Your task to perform on an android device: Search for the best books on Goodreads Image 0: 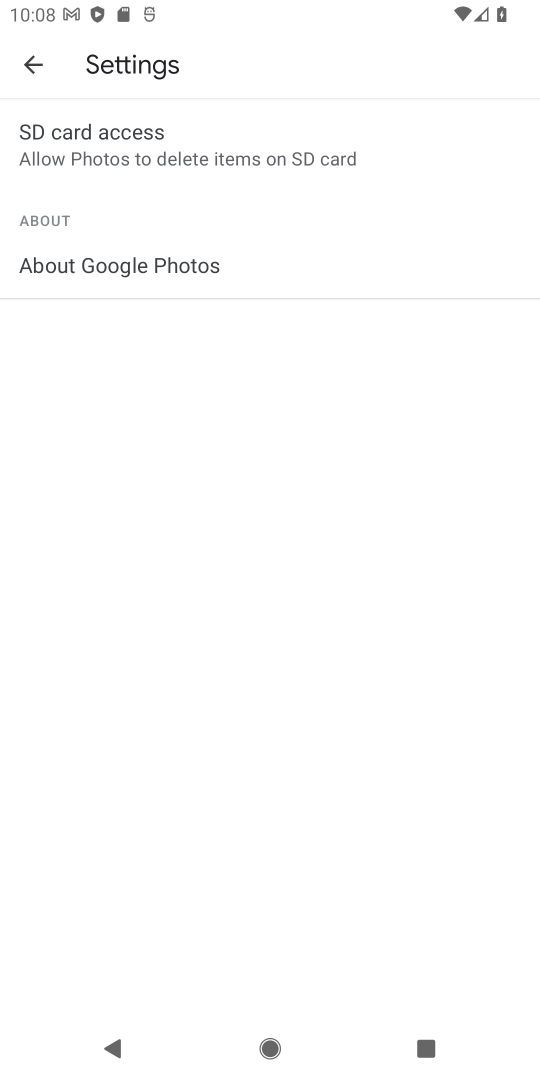
Step 0: press home button
Your task to perform on an android device: Search for the best books on Goodreads Image 1: 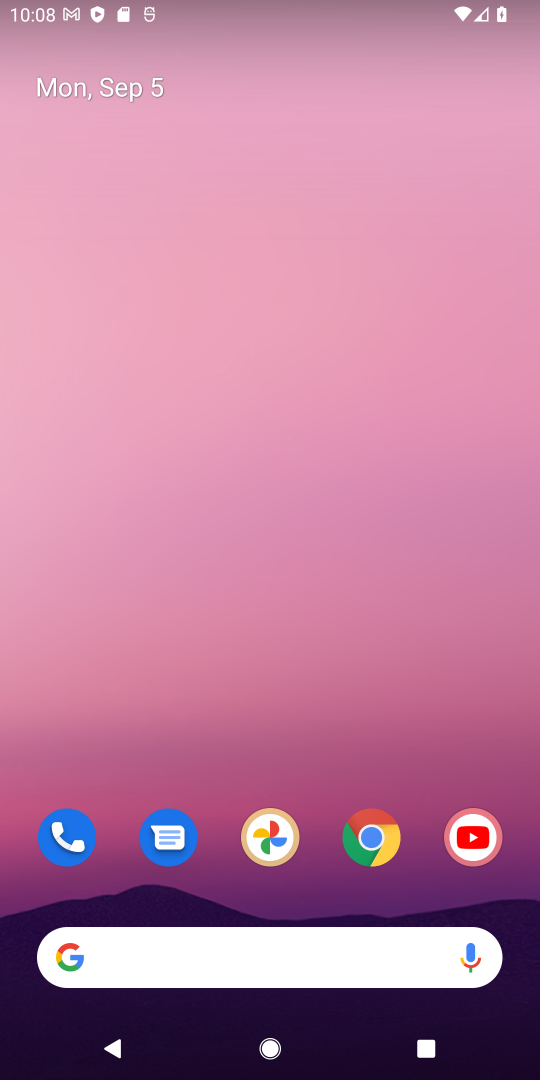
Step 1: drag from (323, 786) to (352, 159)
Your task to perform on an android device: Search for the best books on Goodreads Image 2: 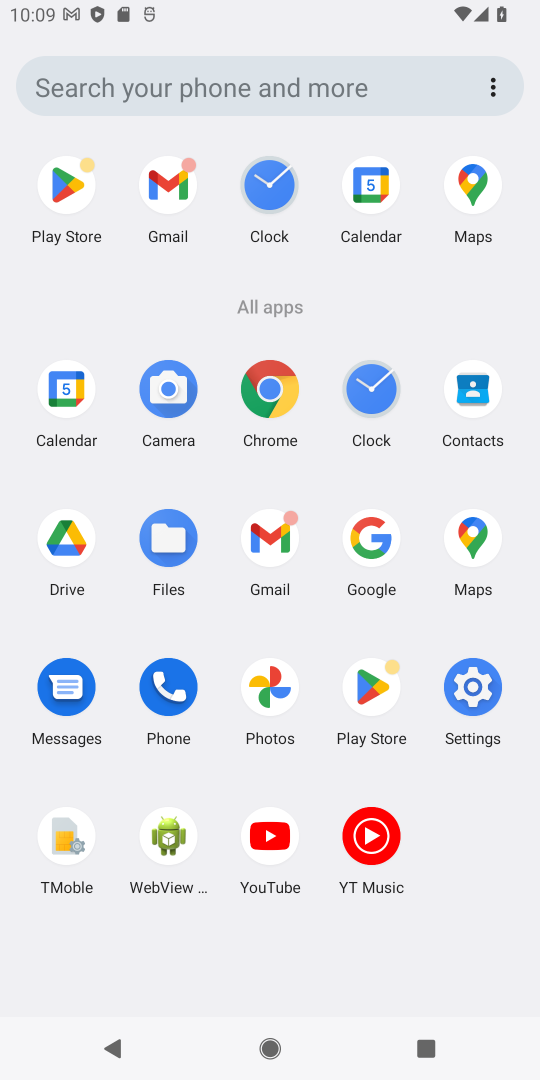
Step 2: click (261, 389)
Your task to perform on an android device: Search for the best books on Goodreads Image 3: 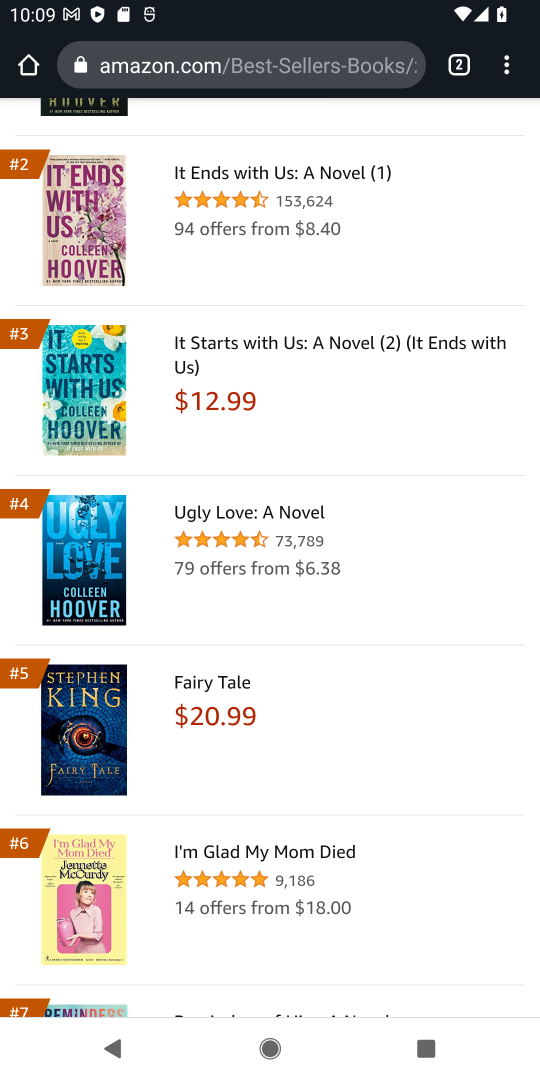
Step 3: click (451, 68)
Your task to perform on an android device: Search for the best books on Goodreads Image 4: 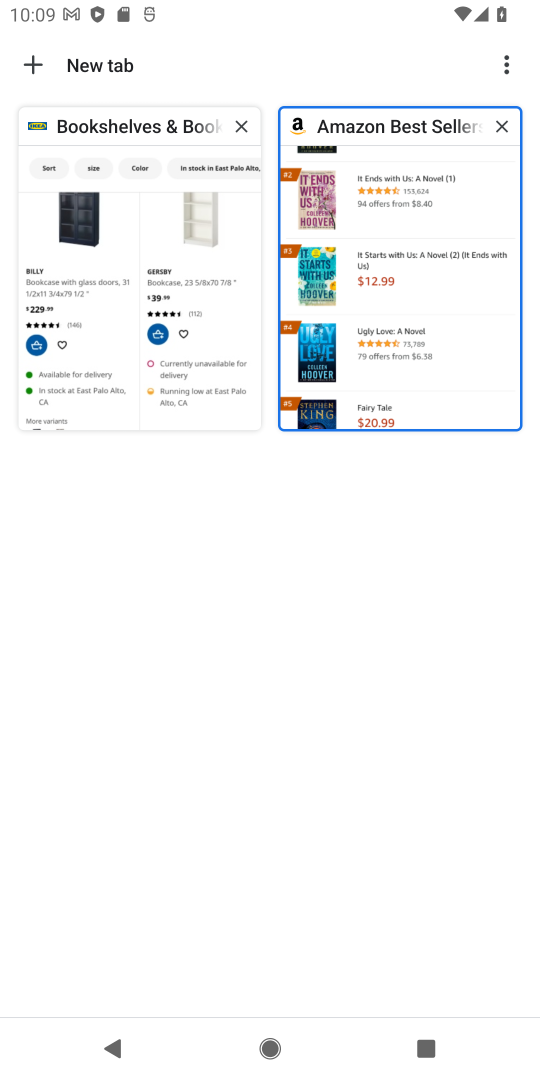
Step 4: click (234, 128)
Your task to perform on an android device: Search for the best books on Goodreads Image 5: 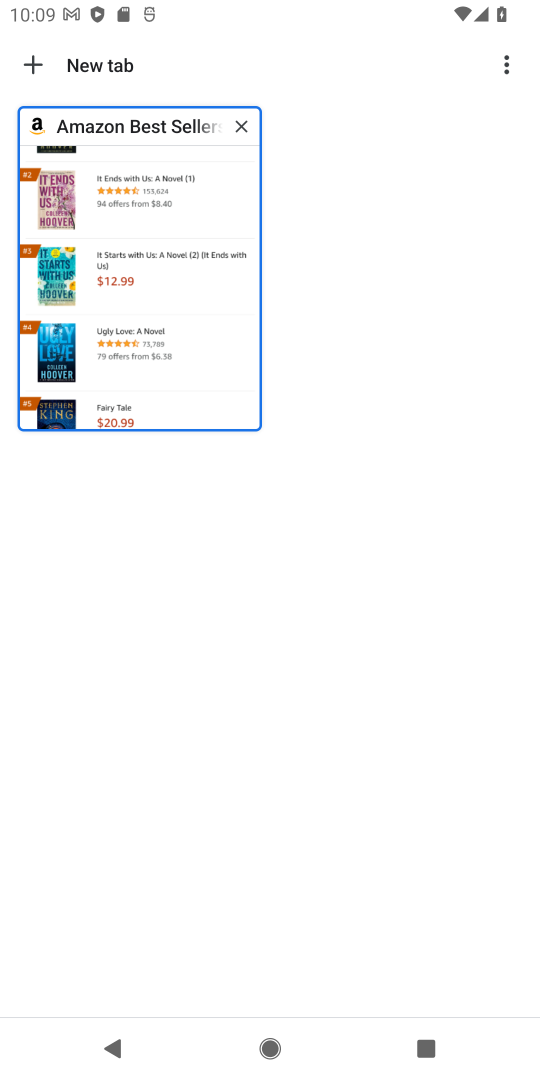
Step 5: click (25, 66)
Your task to perform on an android device: Search for the best books on Goodreads Image 6: 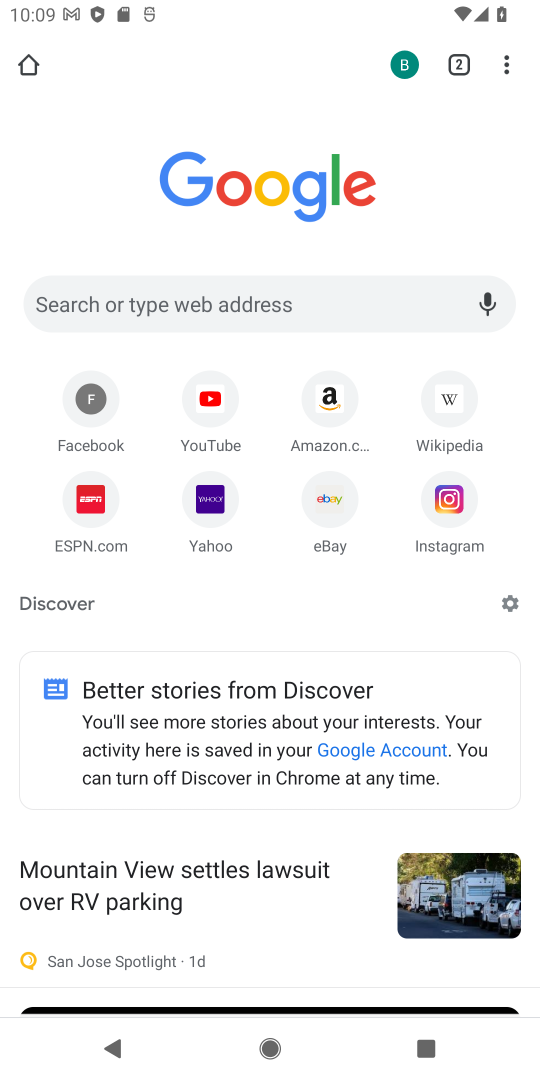
Step 6: click (195, 295)
Your task to perform on an android device: Search for the best books on Goodreads Image 7: 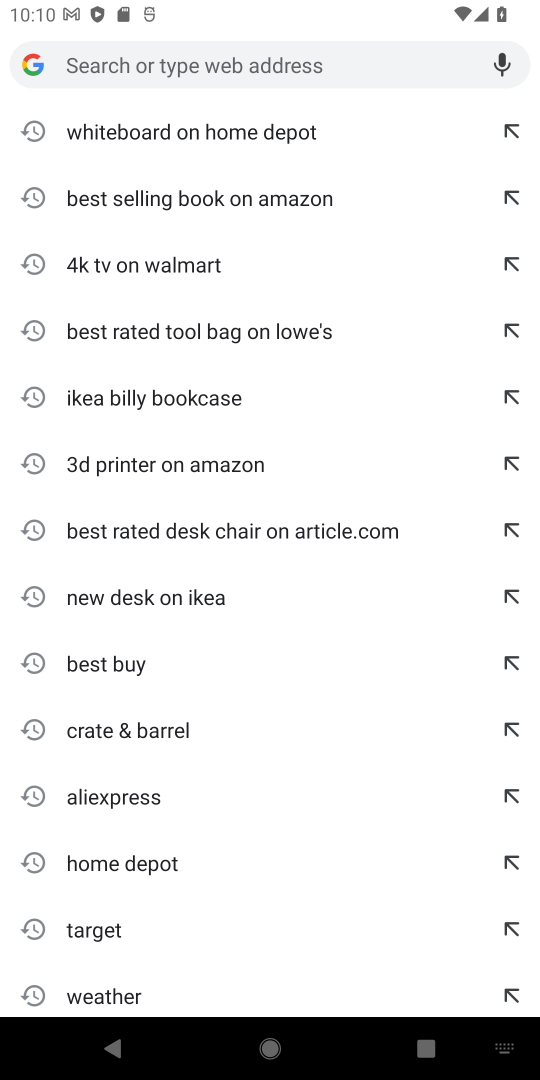
Step 7: type "best books on Goodreads"
Your task to perform on an android device: Search for the best books on Goodreads Image 8: 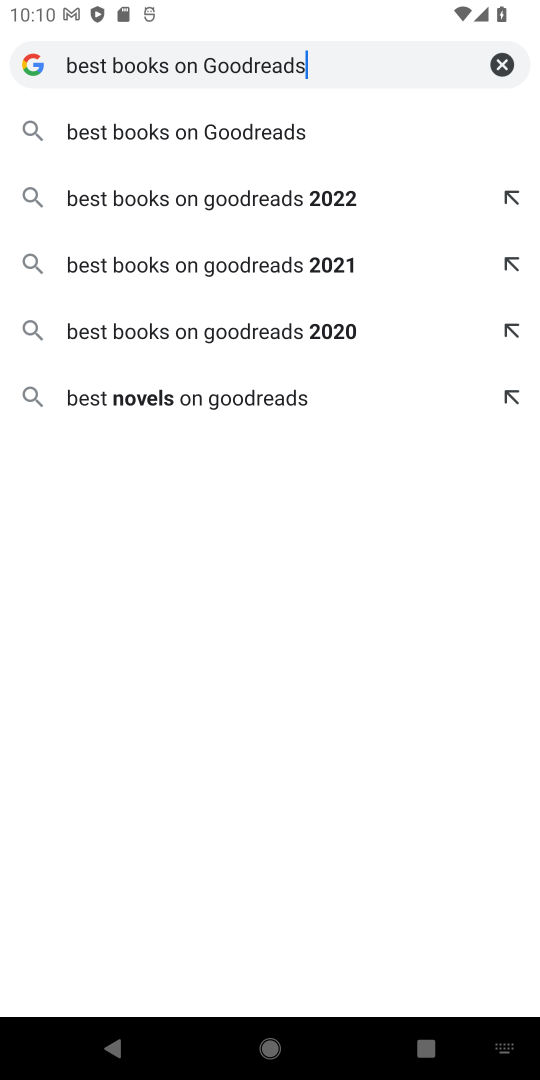
Step 8: click (248, 132)
Your task to perform on an android device: Search for the best books on Goodreads Image 9: 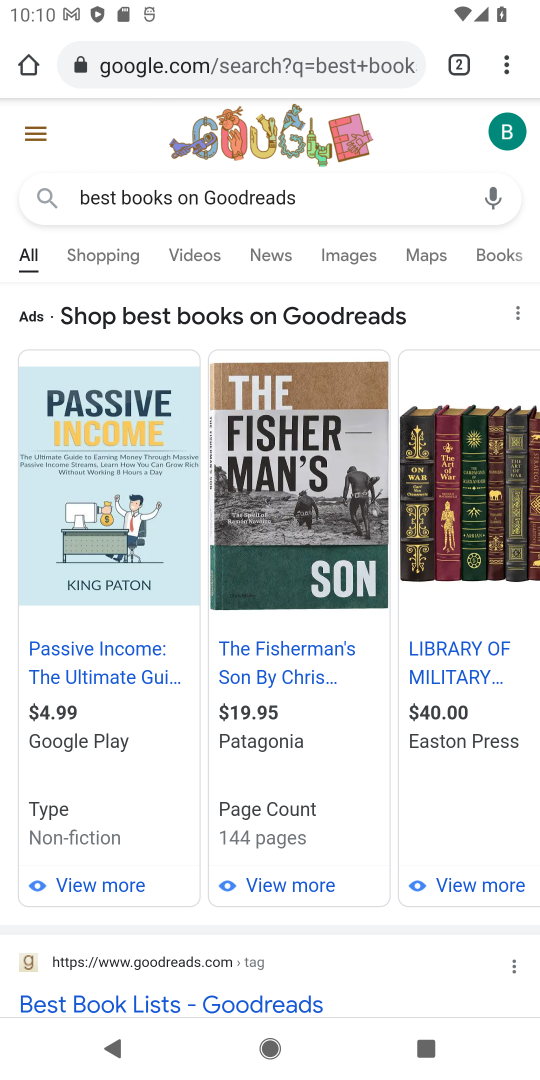
Step 9: click (304, 986)
Your task to perform on an android device: Search for the best books on Goodreads Image 10: 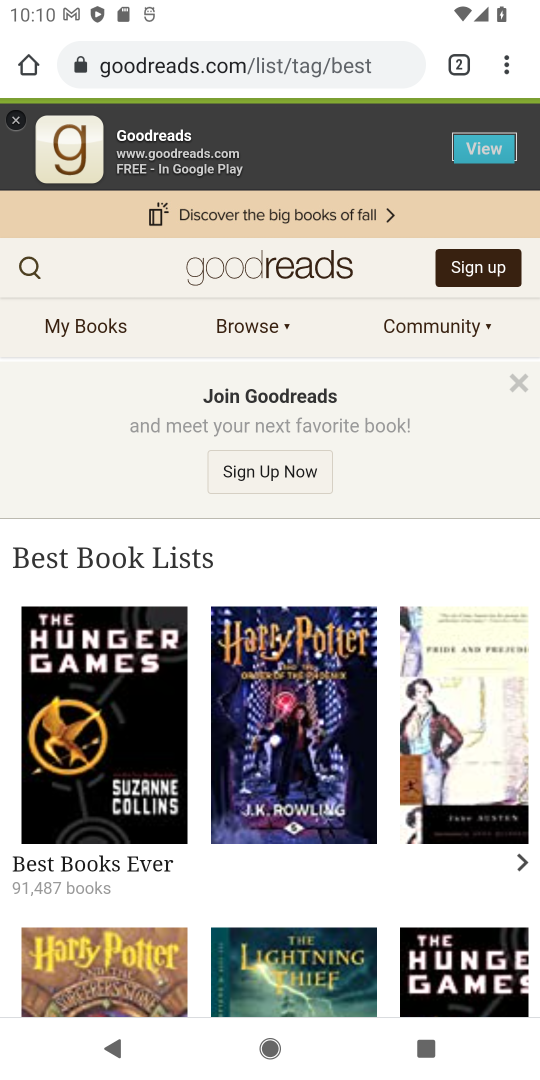
Step 10: drag from (183, 974) to (230, 282)
Your task to perform on an android device: Search for the best books on Goodreads Image 11: 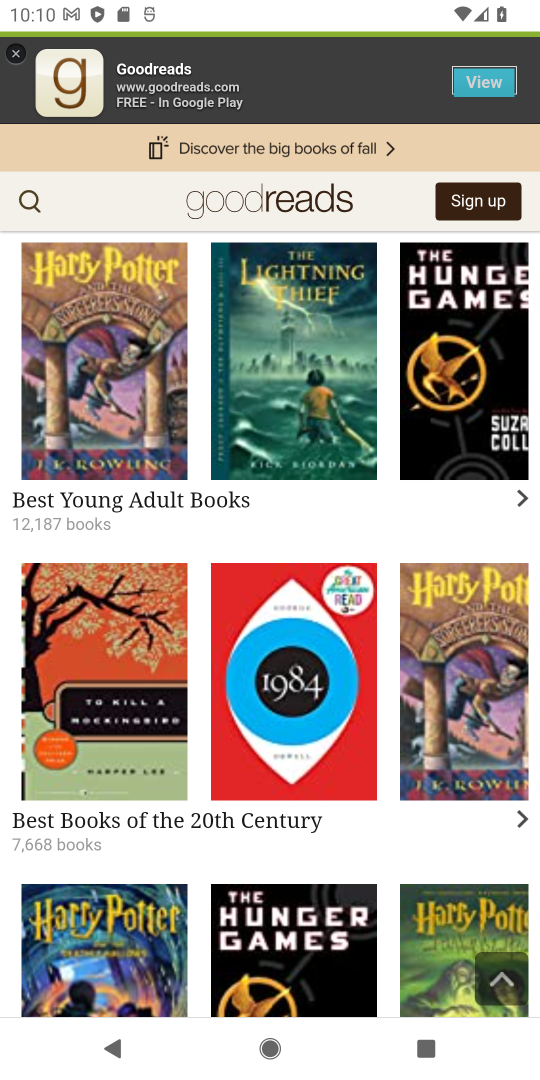
Step 11: drag from (198, 881) to (276, 369)
Your task to perform on an android device: Search for the best books on Goodreads Image 12: 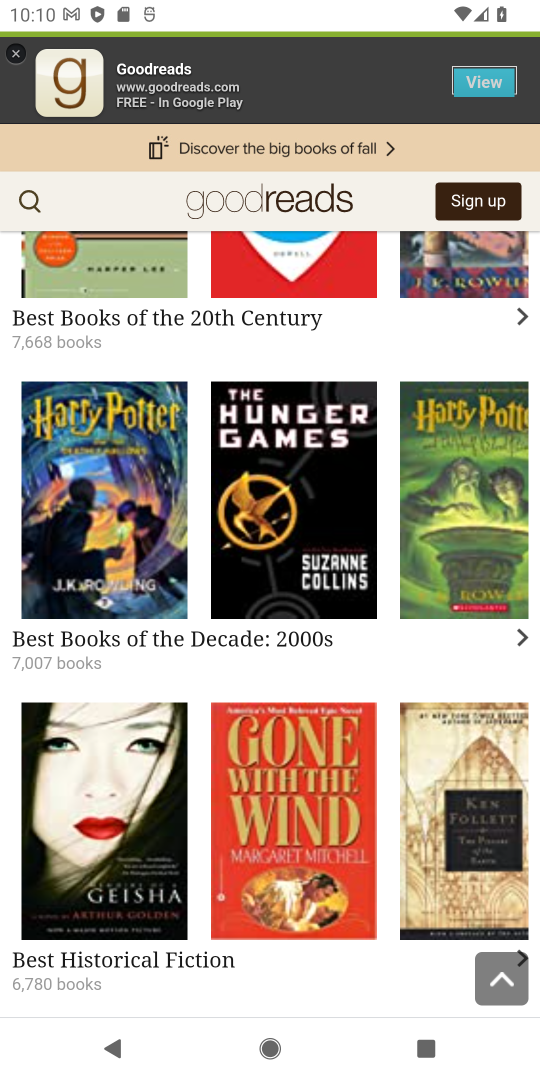
Step 12: drag from (276, 971) to (307, 420)
Your task to perform on an android device: Search for the best books on Goodreads Image 13: 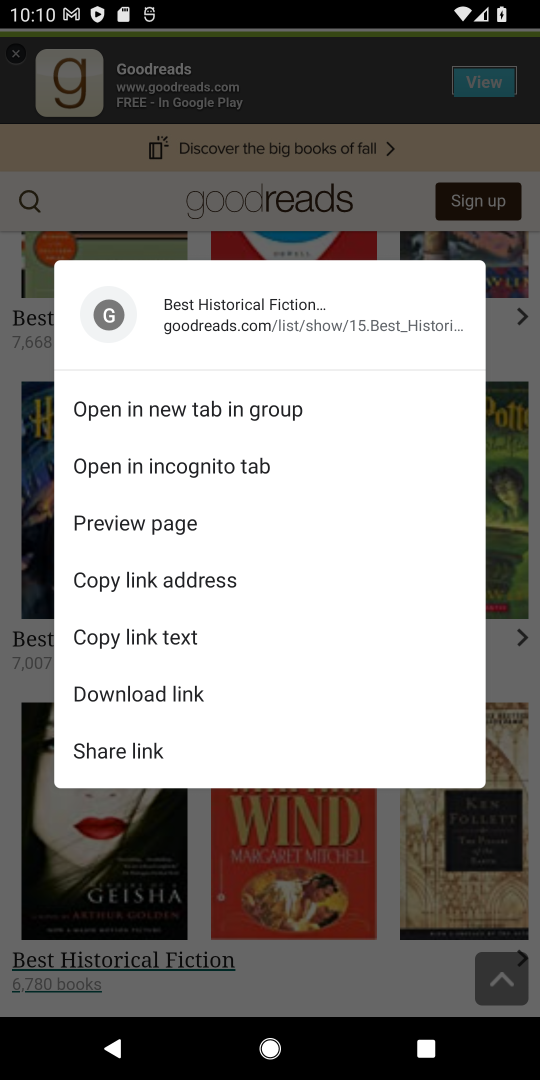
Step 13: click (128, 908)
Your task to perform on an android device: Search for the best books on Goodreads Image 14: 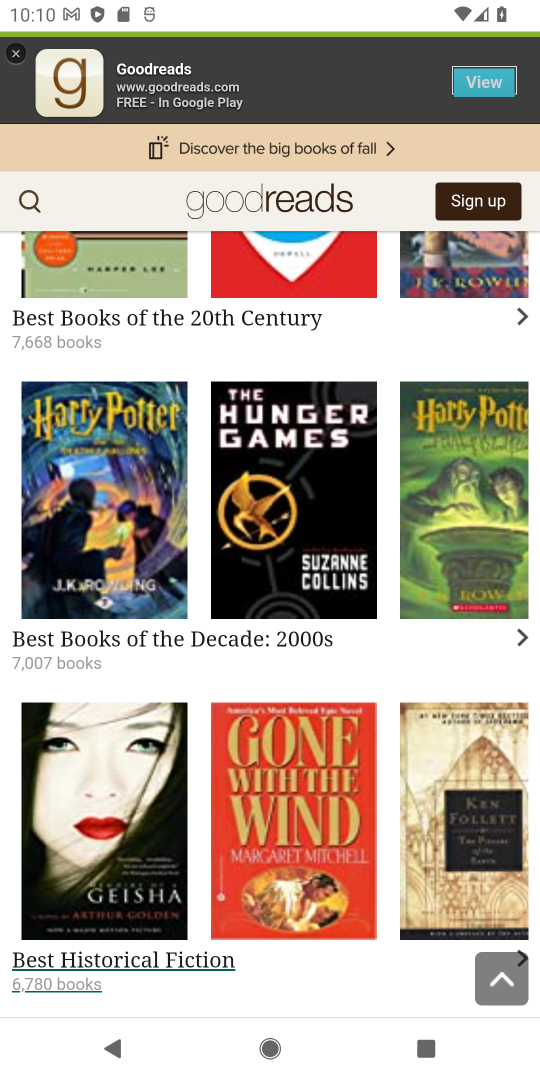
Step 14: task complete